Your task to perform on an android device: Go to ESPN.com Image 0: 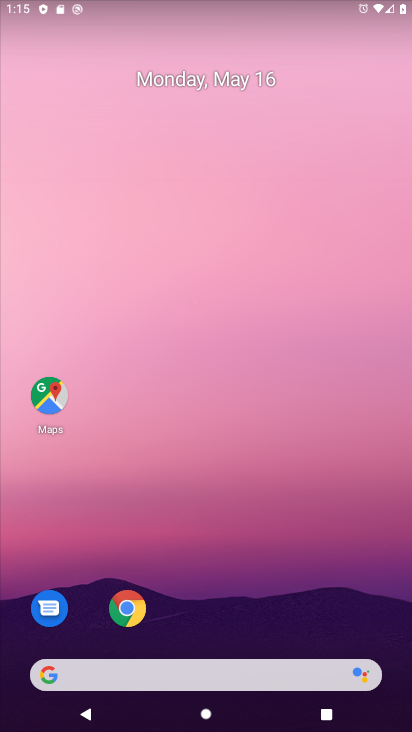
Step 0: click (130, 608)
Your task to perform on an android device: Go to ESPN.com Image 1: 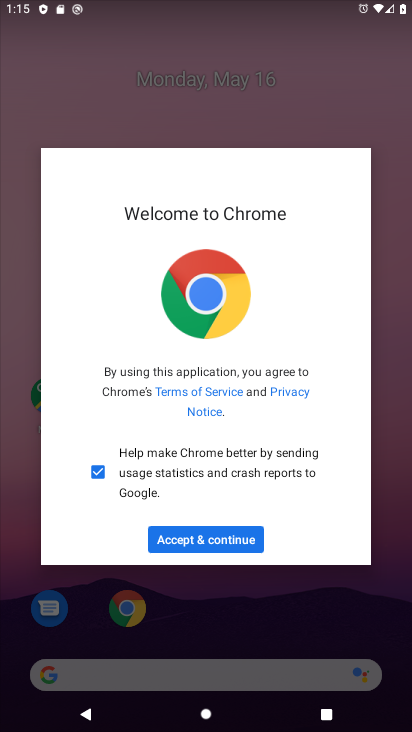
Step 1: click (222, 541)
Your task to perform on an android device: Go to ESPN.com Image 2: 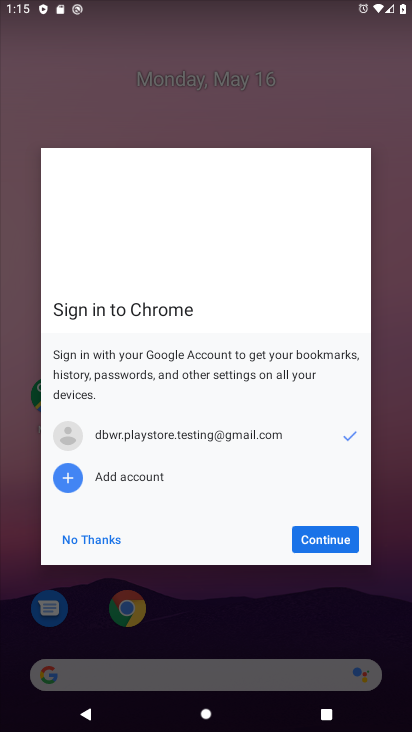
Step 2: click (326, 547)
Your task to perform on an android device: Go to ESPN.com Image 3: 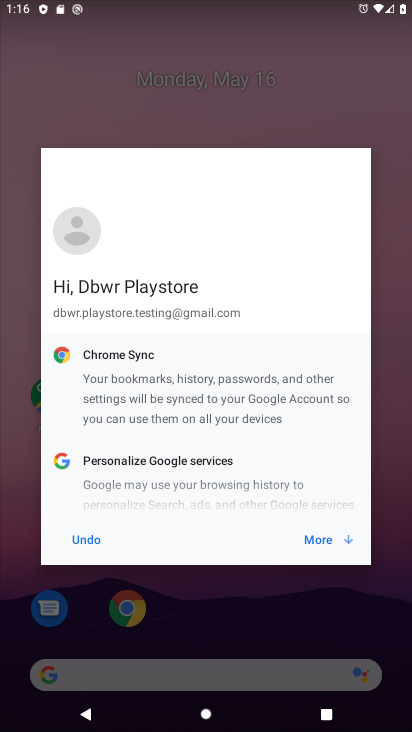
Step 3: click (320, 547)
Your task to perform on an android device: Go to ESPN.com Image 4: 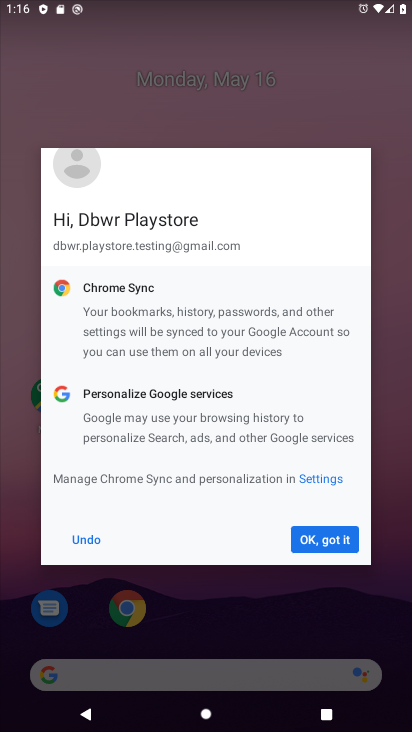
Step 4: click (320, 546)
Your task to perform on an android device: Go to ESPN.com Image 5: 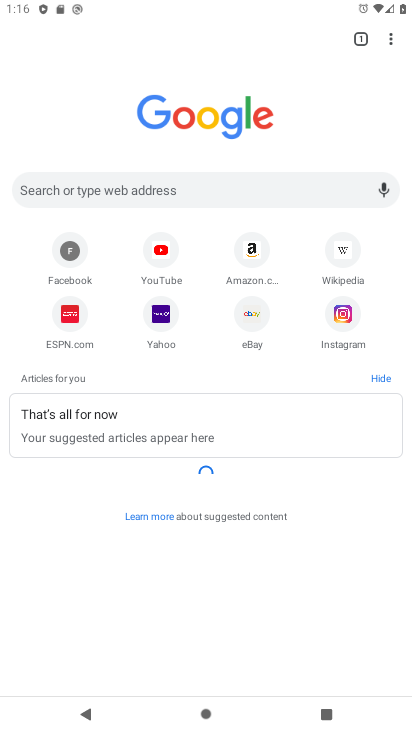
Step 5: click (101, 190)
Your task to perform on an android device: Go to ESPN.com Image 6: 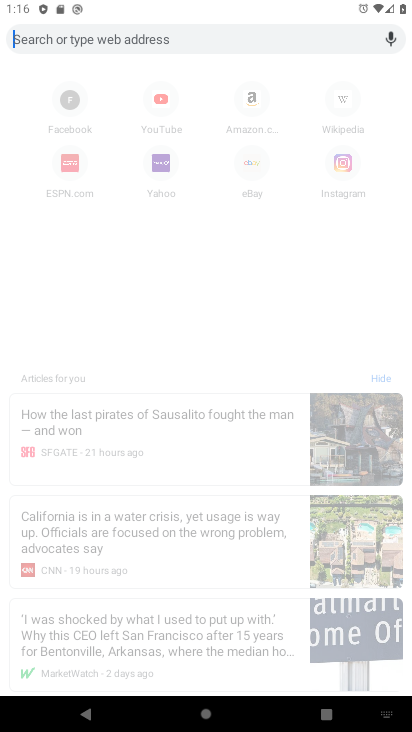
Step 6: type "Espn.com"
Your task to perform on an android device: Go to ESPN.com Image 7: 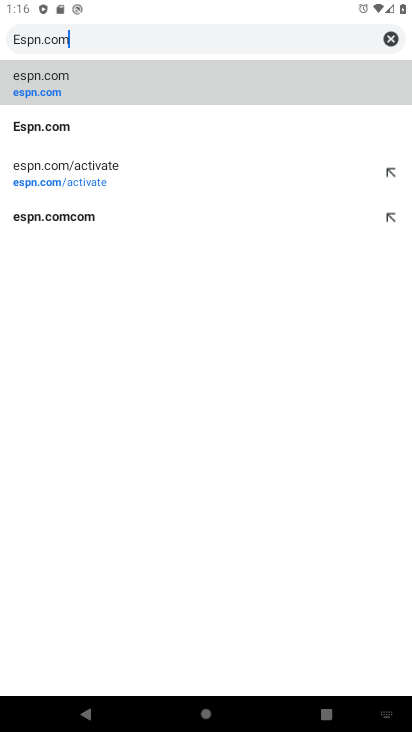
Step 7: click (47, 93)
Your task to perform on an android device: Go to ESPN.com Image 8: 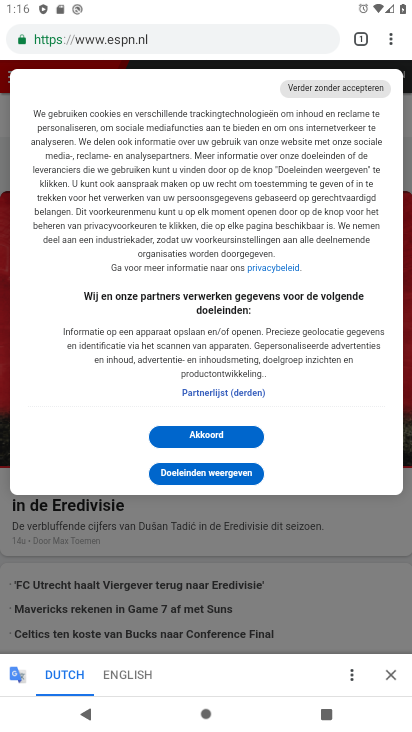
Step 8: task complete